Your task to perform on an android device: turn off notifications settings in the gmail app Image 0: 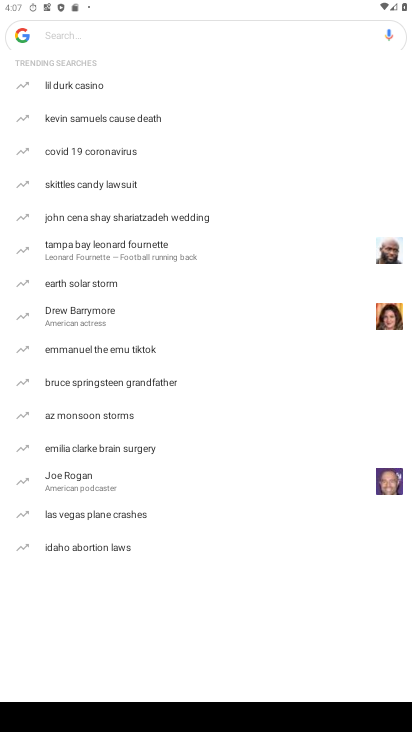
Step 0: press home button
Your task to perform on an android device: turn off notifications settings in the gmail app Image 1: 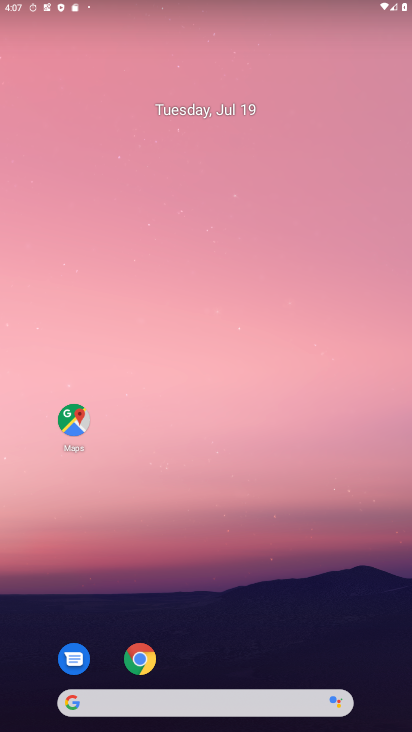
Step 1: drag from (290, 577) to (249, 40)
Your task to perform on an android device: turn off notifications settings in the gmail app Image 2: 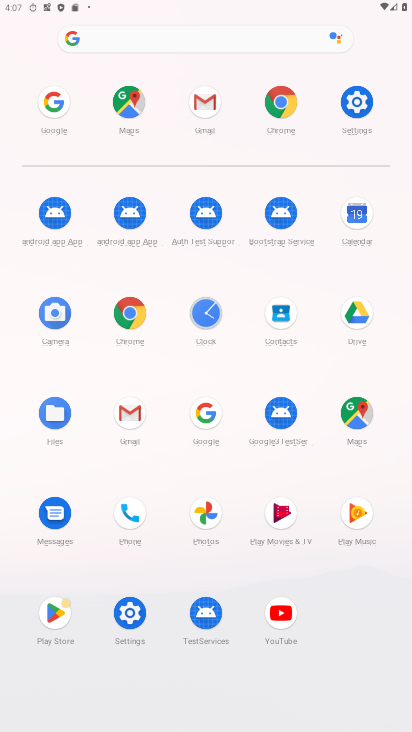
Step 2: click (202, 101)
Your task to perform on an android device: turn off notifications settings in the gmail app Image 3: 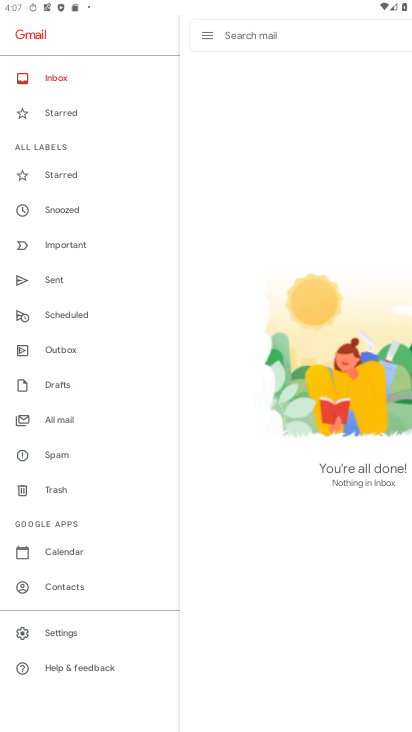
Step 3: drag from (96, 627) to (107, 137)
Your task to perform on an android device: turn off notifications settings in the gmail app Image 4: 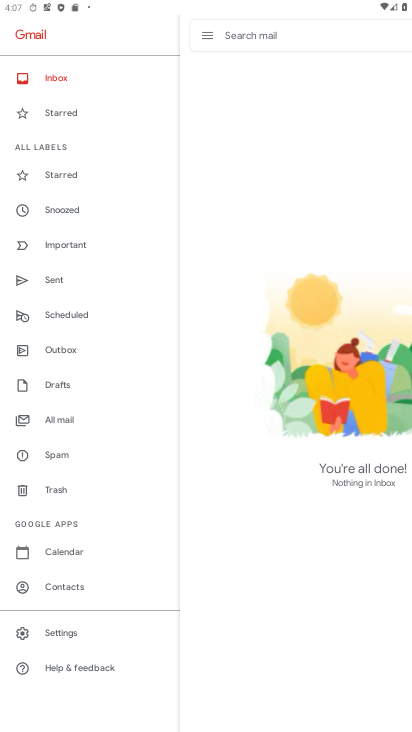
Step 4: click (42, 640)
Your task to perform on an android device: turn off notifications settings in the gmail app Image 5: 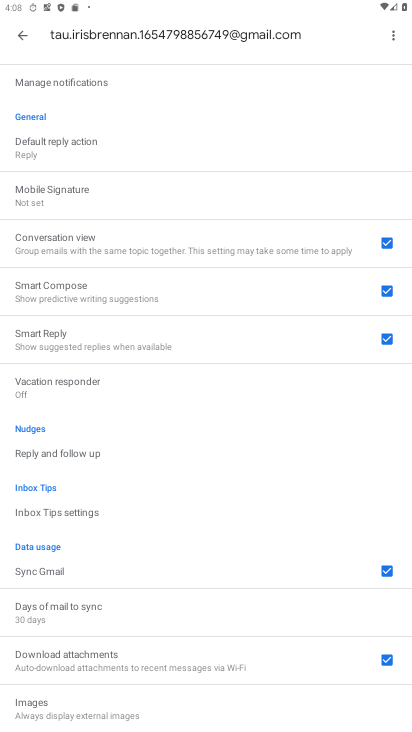
Step 5: drag from (132, 150) to (200, 647)
Your task to perform on an android device: turn off notifications settings in the gmail app Image 6: 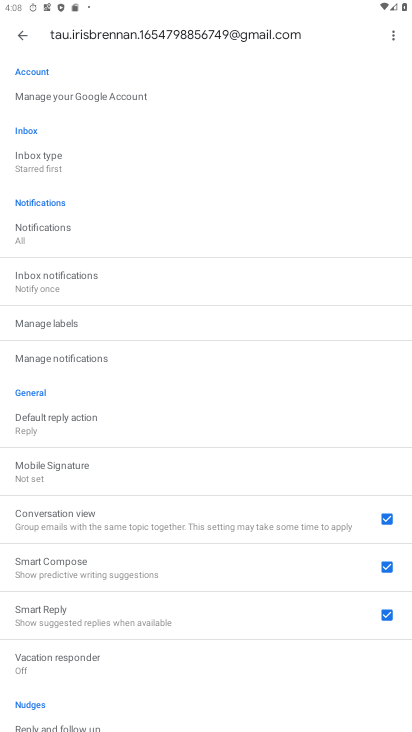
Step 6: click (17, 241)
Your task to perform on an android device: turn off notifications settings in the gmail app Image 7: 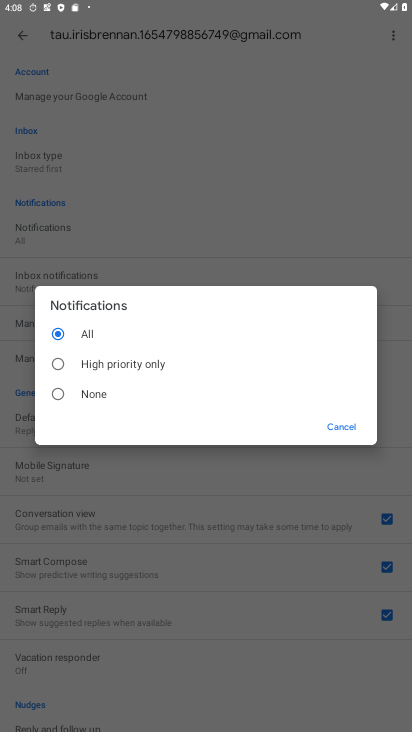
Step 7: click (76, 382)
Your task to perform on an android device: turn off notifications settings in the gmail app Image 8: 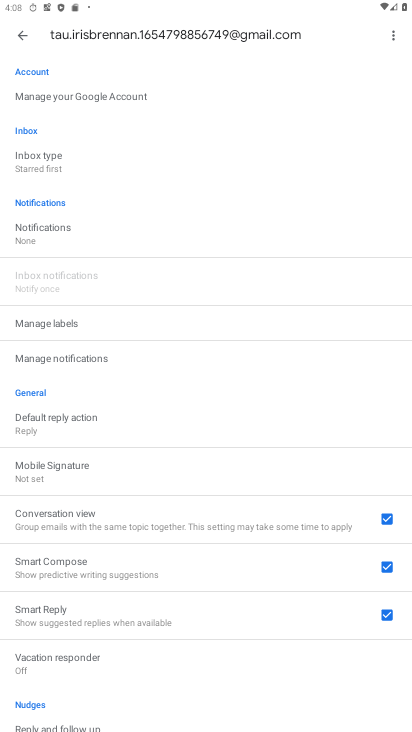
Step 8: task complete